Your task to perform on an android device: Open the web browser Image 0: 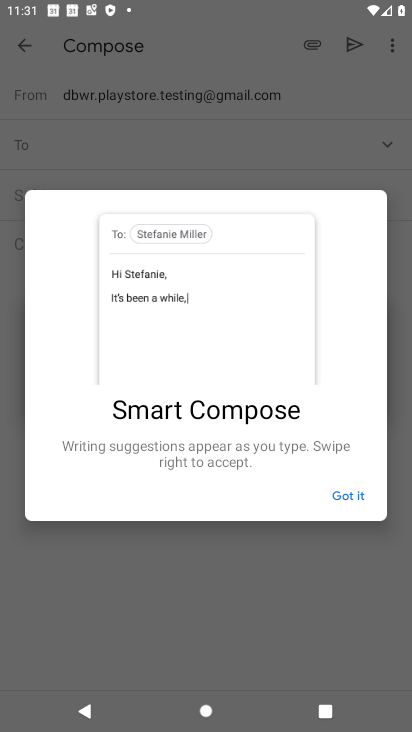
Step 0: press home button
Your task to perform on an android device: Open the web browser Image 1: 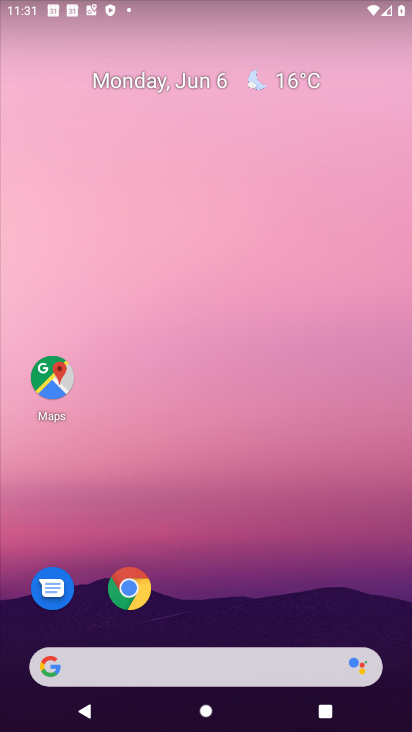
Step 1: click (122, 612)
Your task to perform on an android device: Open the web browser Image 2: 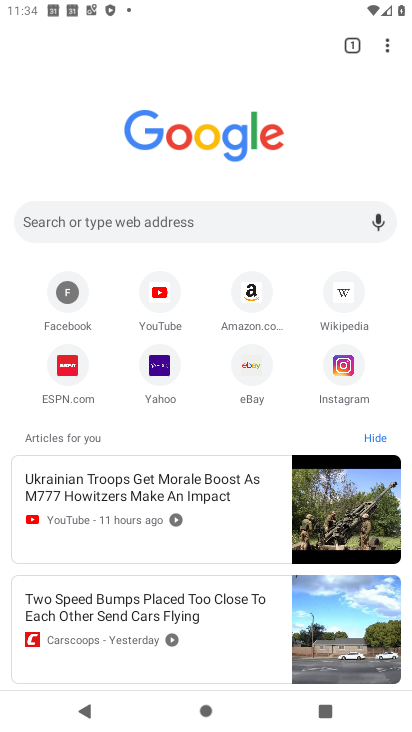
Step 2: task complete